Your task to perform on an android device: snooze an email in the gmail app Image 0: 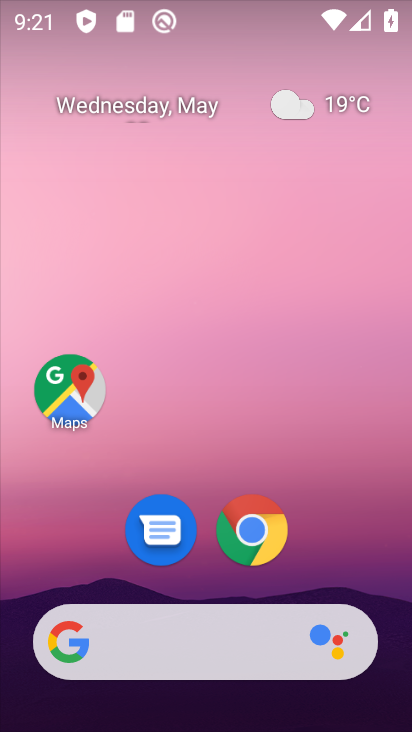
Step 0: drag from (265, 668) to (125, 86)
Your task to perform on an android device: snooze an email in the gmail app Image 1: 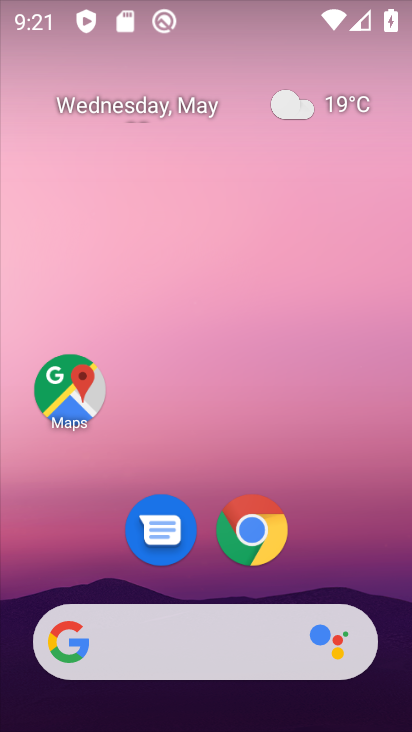
Step 1: drag from (196, 535) to (34, 96)
Your task to perform on an android device: snooze an email in the gmail app Image 2: 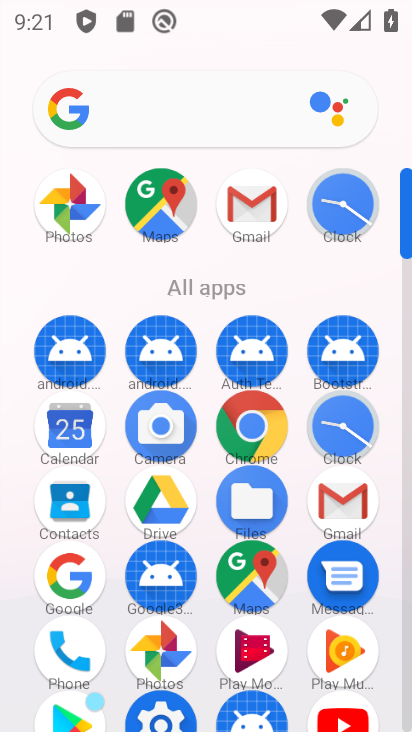
Step 2: click (321, 513)
Your task to perform on an android device: snooze an email in the gmail app Image 3: 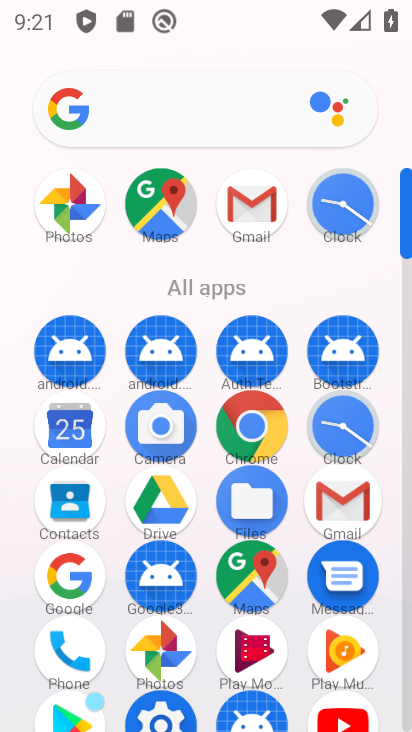
Step 3: click (328, 494)
Your task to perform on an android device: snooze an email in the gmail app Image 4: 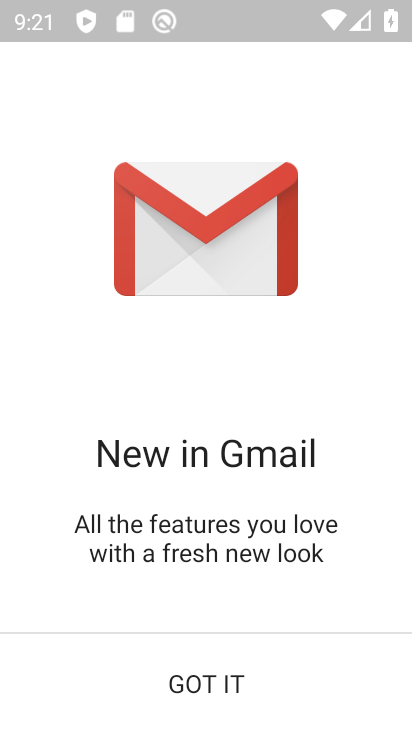
Step 4: click (211, 674)
Your task to perform on an android device: snooze an email in the gmail app Image 5: 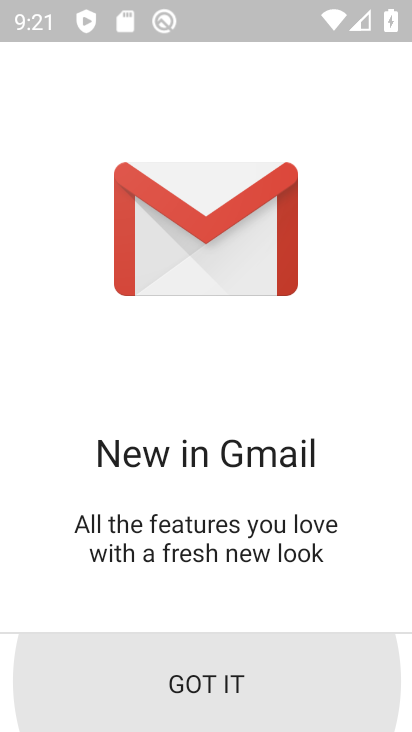
Step 5: click (210, 675)
Your task to perform on an android device: snooze an email in the gmail app Image 6: 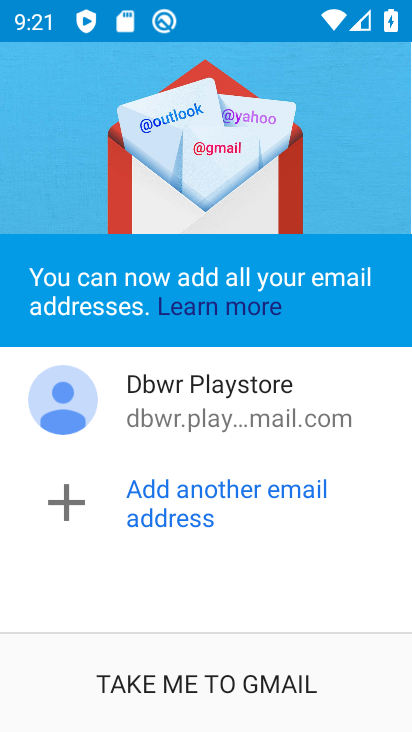
Step 6: click (205, 673)
Your task to perform on an android device: snooze an email in the gmail app Image 7: 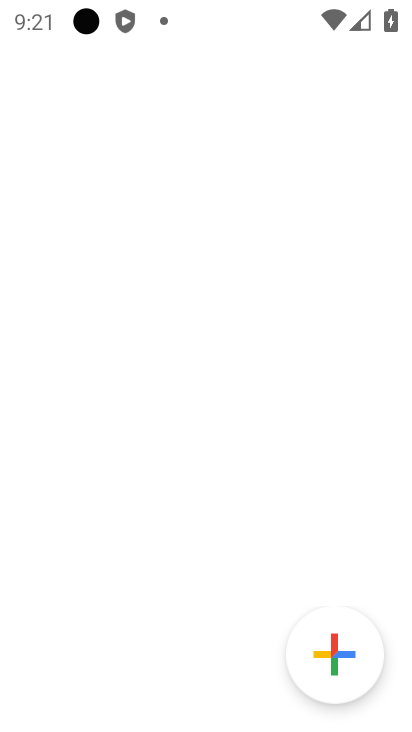
Step 7: click (180, 683)
Your task to perform on an android device: snooze an email in the gmail app Image 8: 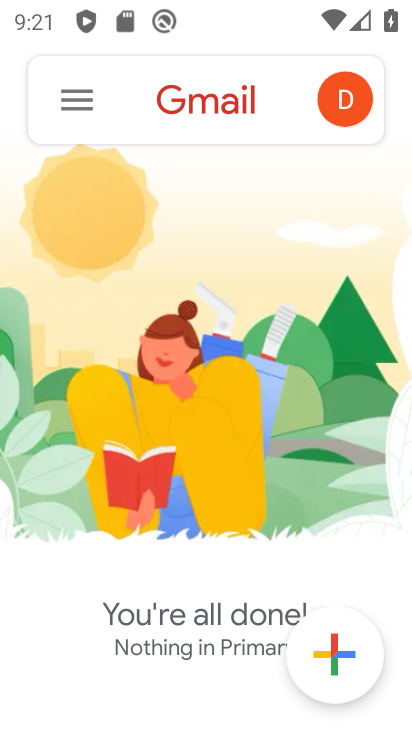
Step 8: press back button
Your task to perform on an android device: snooze an email in the gmail app Image 9: 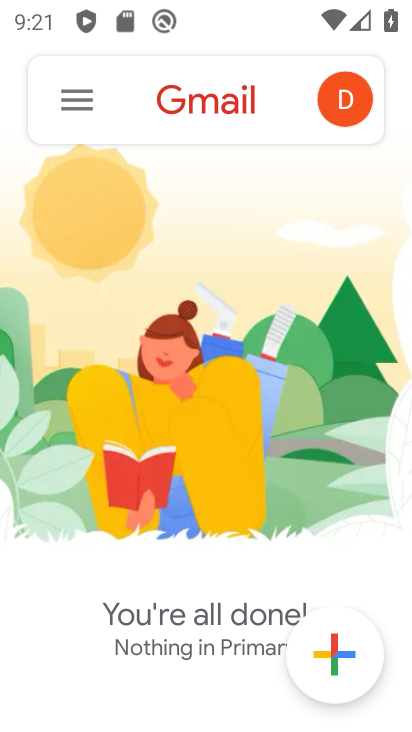
Step 9: press back button
Your task to perform on an android device: snooze an email in the gmail app Image 10: 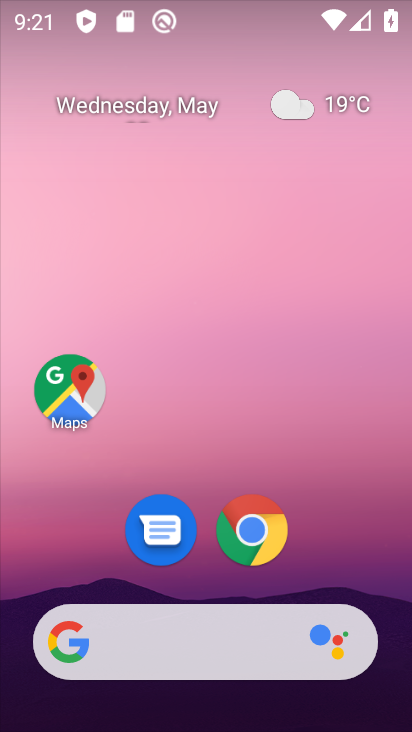
Step 10: drag from (243, 625) to (124, 142)
Your task to perform on an android device: snooze an email in the gmail app Image 11: 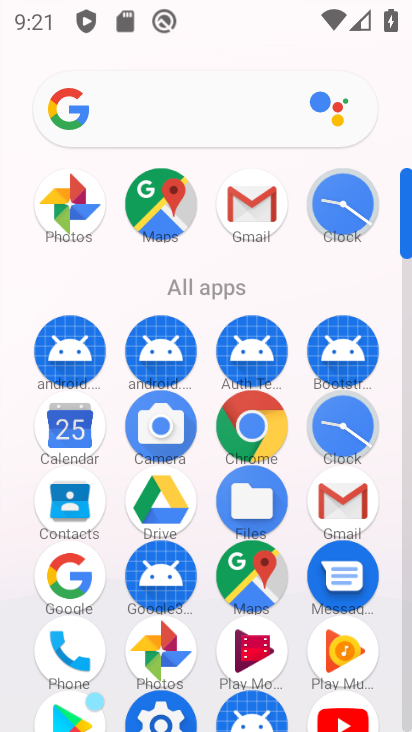
Step 11: click (341, 486)
Your task to perform on an android device: snooze an email in the gmail app Image 12: 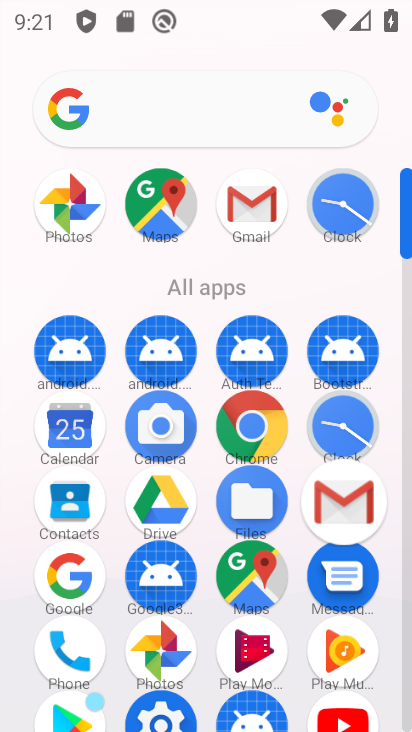
Step 12: click (339, 483)
Your task to perform on an android device: snooze an email in the gmail app Image 13: 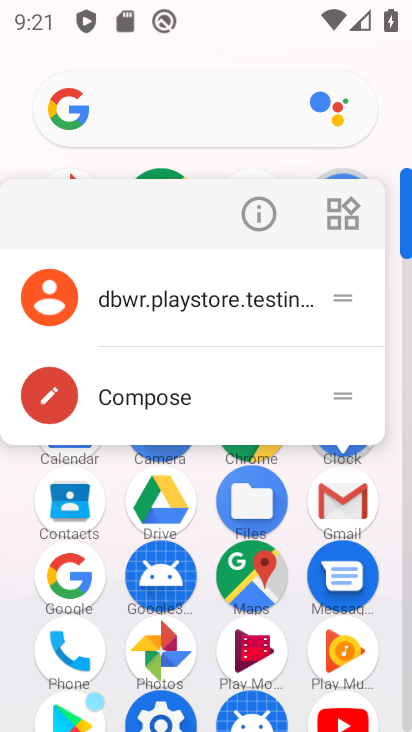
Step 13: click (337, 501)
Your task to perform on an android device: snooze an email in the gmail app Image 14: 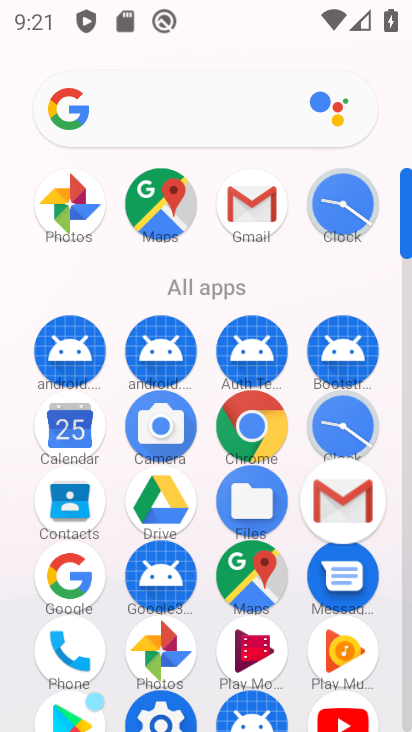
Step 14: click (337, 500)
Your task to perform on an android device: snooze an email in the gmail app Image 15: 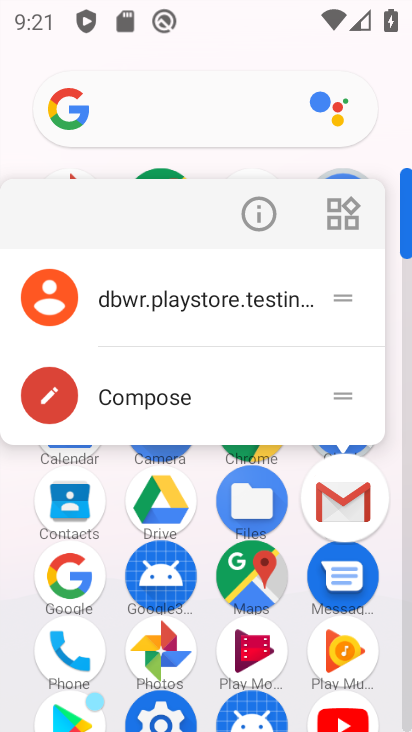
Step 15: click (335, 488)
Your task to perform on an android device: snooze an email in the gmail app Image 16: 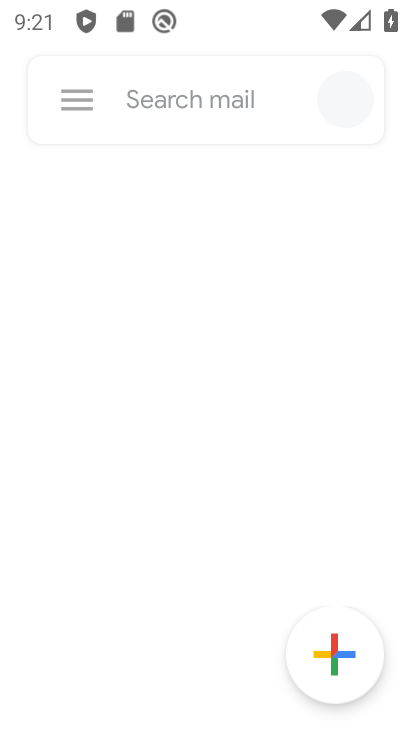
Step 16: click (349, 496)
Your task to perform on an android device: snooze an email in the gmail app Image 17: 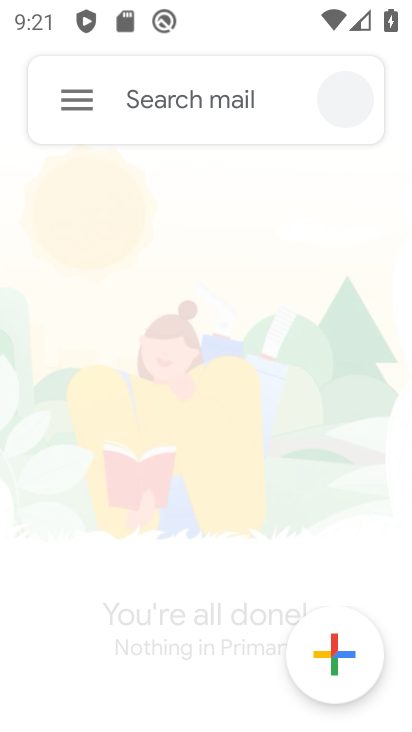
Step 17: click (349, 496)
Your task to perform on an android device: snooze an email in the gmail app Image 18: 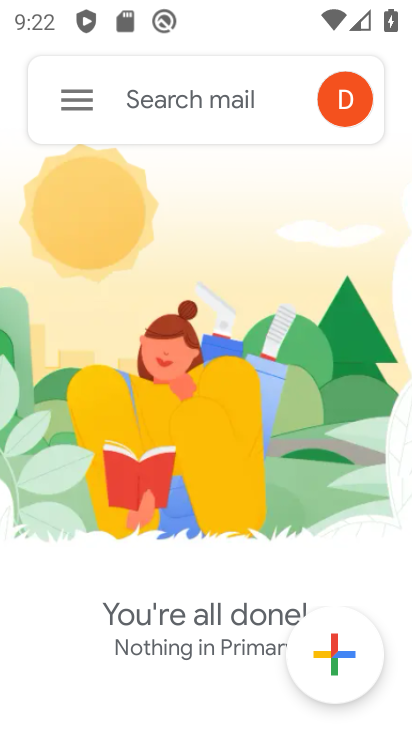
Step 18: click (82, 106)
Your task to perform on an android device: snooze an email in the gmail app Image 19: 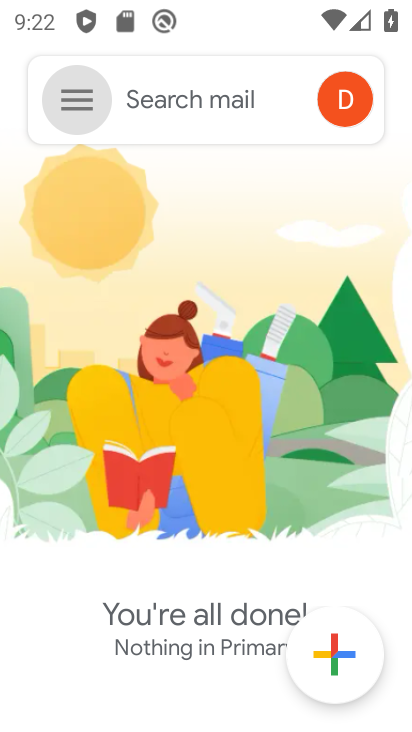
Step 19: click (84, 111)
Your task to perform on an android device: snooze an email in the gmail app Image 20: 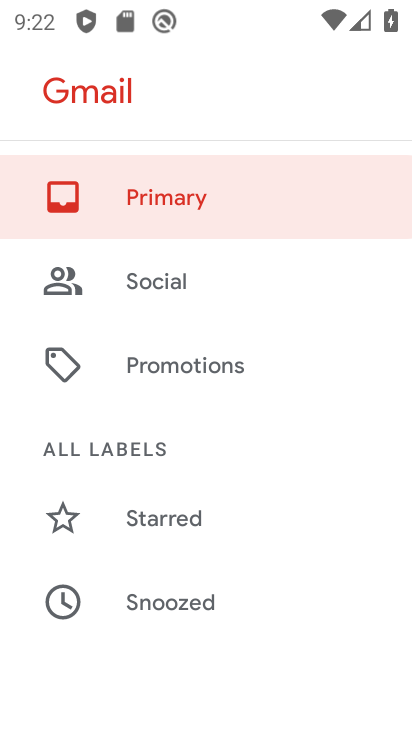
Step 20: drag from (168, 490) to (155, 185)
Your task to perform on an android device: snooze an email in the gmail app Image 21: 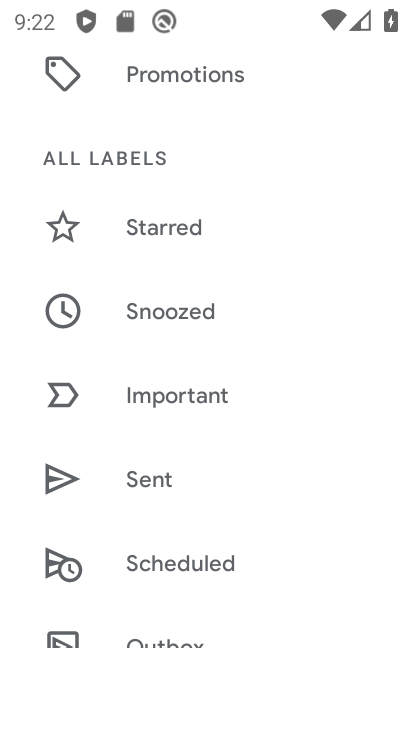
Step 21: drag from (234, 419) to (217, 157)
Your task to perform on an android device: snooze an email in the gmail app Image 22: 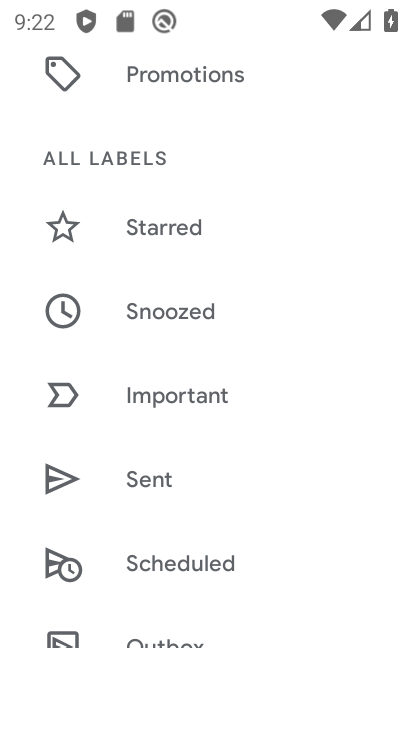
Step 22: click (155, 310)
Your task to perform on an android device: snooze an email in the gmail app Image 23: 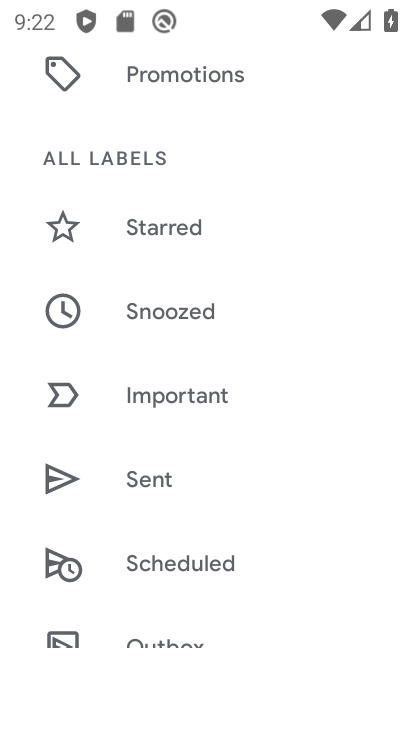
Step 23: click (157, 309)
Your task to perform on an android device: snooze an email in the gmail app Image 24: 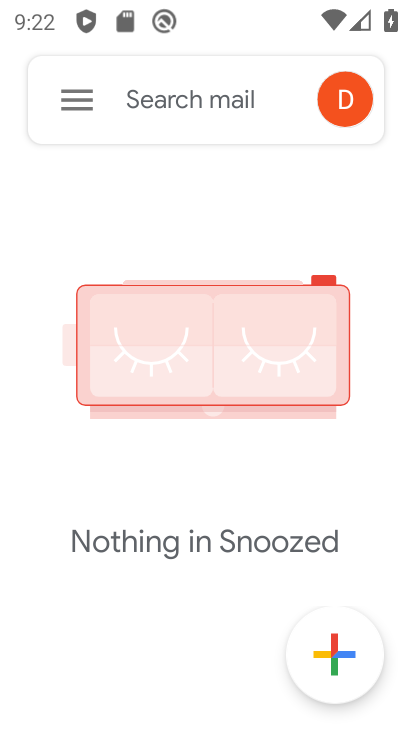
Step 24: task complete